Your task to perform on an android device: turn pop-ups on in chrome Image 0: 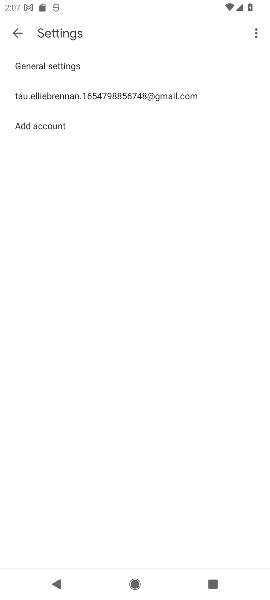
Step 0: press home button
Your task to perform on an android device: turn pop-ups on in chrome Image 1: 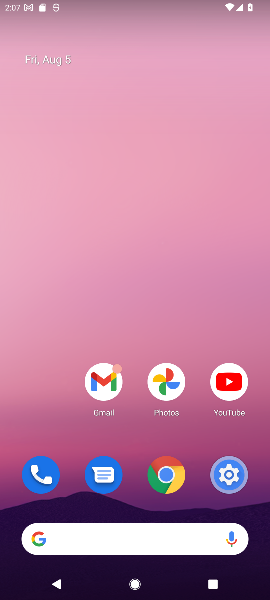
Step 1: click (166, 470)
Your task to perform on an android device: turn pop-ups on in chrome Image 2: 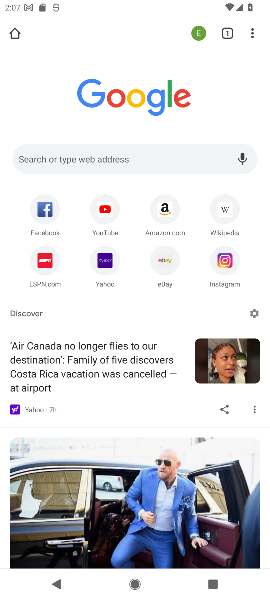
Step 2: click (251, 34)
Your task to perform on an android device: turn pop-ups on in chrome Image 3: 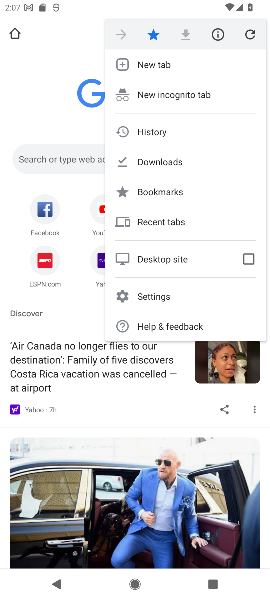
Step 3: click (152, 293)
Your task to perform on an android device: turn pop-ups on in chrome Image 4: 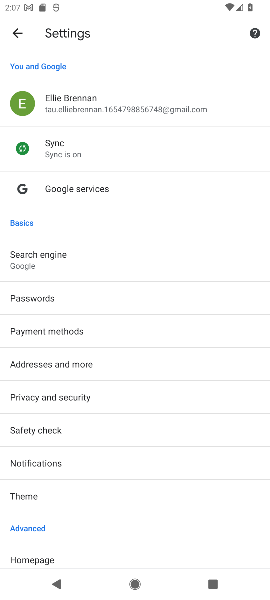
Step 4: drag from (167, 515) to (149, 268)
Your task to perform on an android device: turn pop-ups on in chrome Image 5: 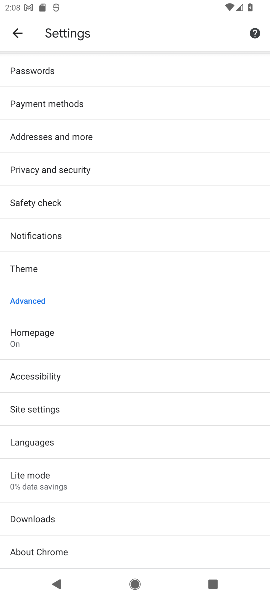
Step 5: click (51, 403)
Your task to perform on an android device: turn pop-ups on in chrome Image 6: 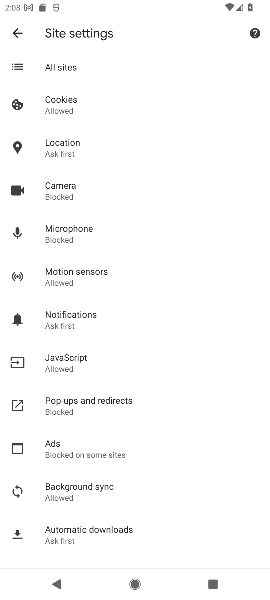
Step 6: click (93, 405)
Your task to perform on an android device: turn pop-ups on in chrome Image 7: 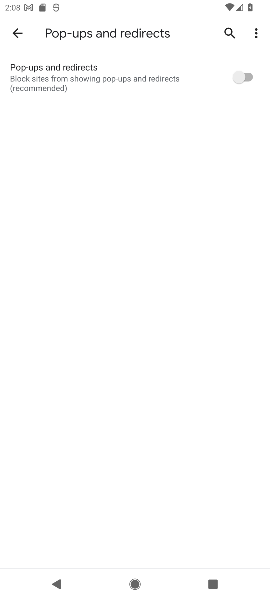
Step 7: click (251, 75)
Your task to perform on an android device: turn pop-ups on in chrome Image 8: 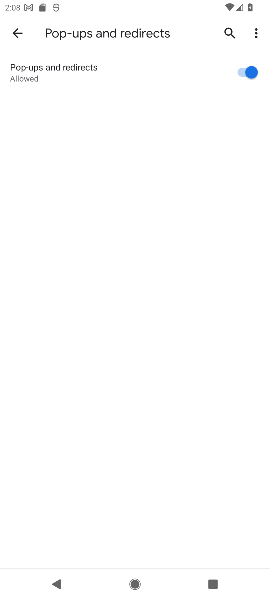
Step 8: task complete